Your task to perform on an android device: turn on priority inbox in the gmail app Image 0: 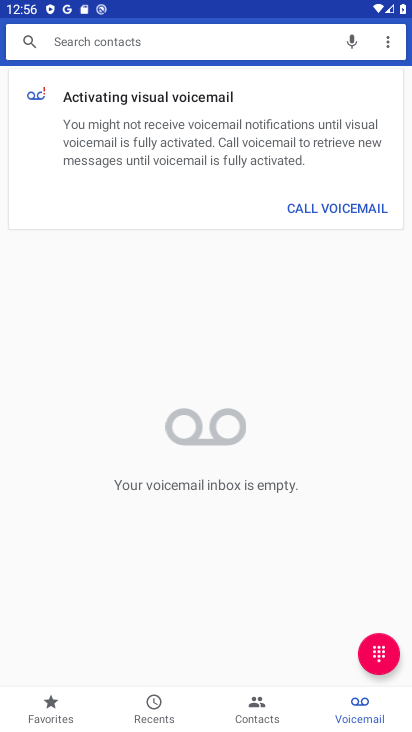
Step 0: press home button
Your task to perform on an android device: turn on priority inbox in the gmail app Image 1: 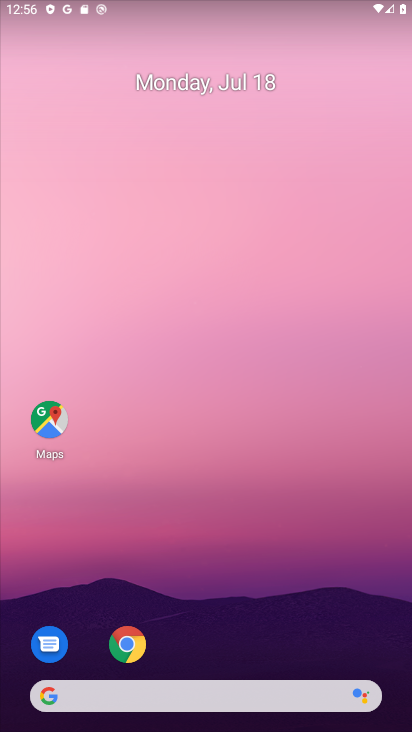
Step 1: drag from (145, 704) to (247, 20)
Your task to perform on an android device: turn on priority inbox in the gmail app Image 2: 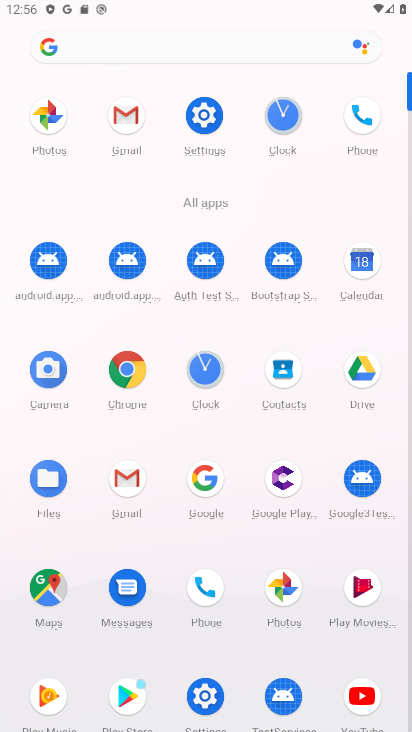
Step 2: click (111, 486)
Your task to perform on an android device: turn on priority inbox in the gmail app Image 3: 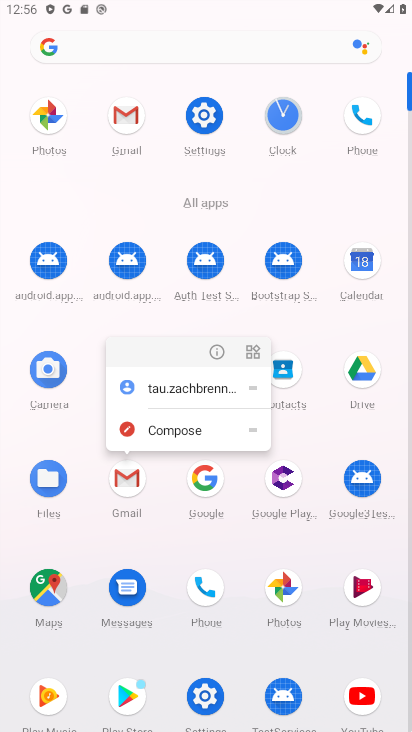
Step 3: click (125, 478)
Your task to perform on an android device: turn on priority inbox in the gmail app Image 4: 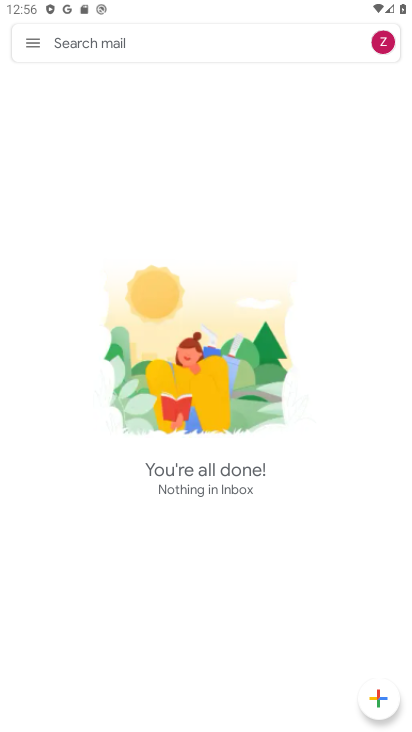
Step 4: click (24, 39)
Your task to perform on an android device: turn on priority inbox in the gmail app Image 5: 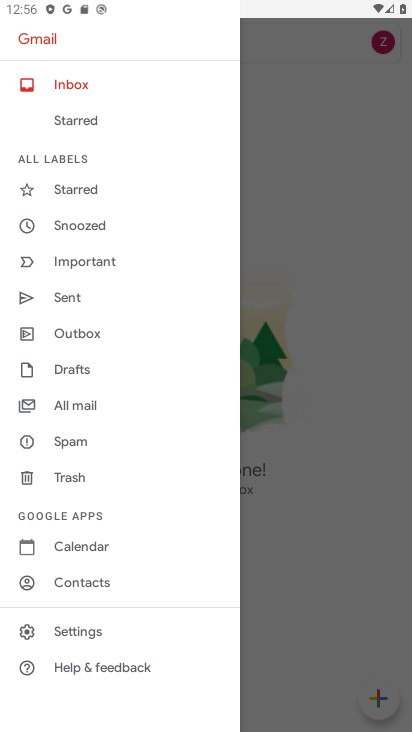
Step 5: drag from (116, 704) to (172, 278)
Your task to perform on an android device: turn on priority inbox in the gmail app Image 6: 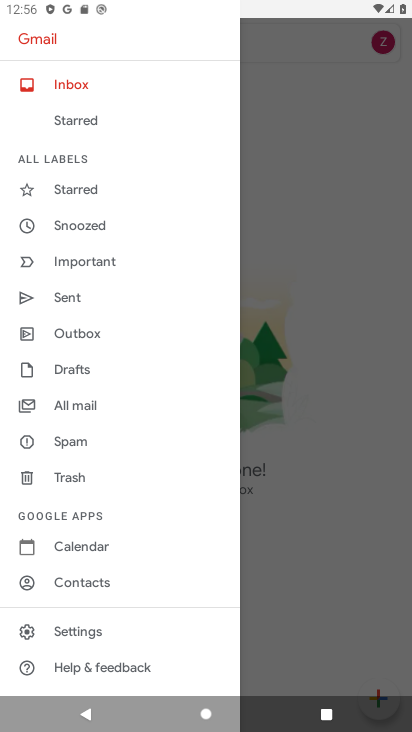
Step 6: drag from (53, 583) to (177, 169)
Your task to perform on an android device: turn on priority inbox in the gmail app Image 7: 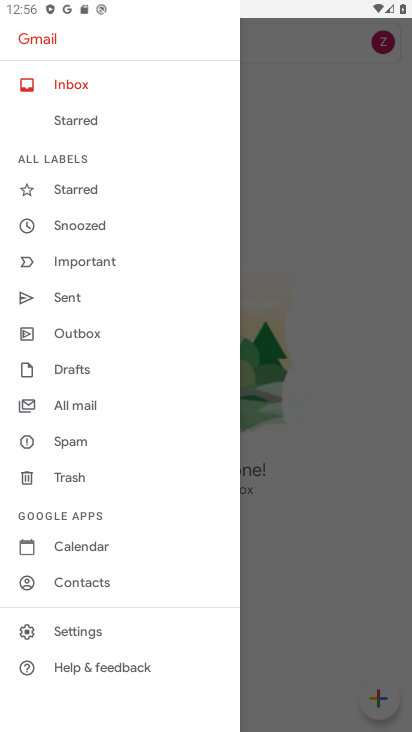
Step 7: click (111, 628)
Your task to perform on an android device: turn on priority inbox in the gmail app Image 8: 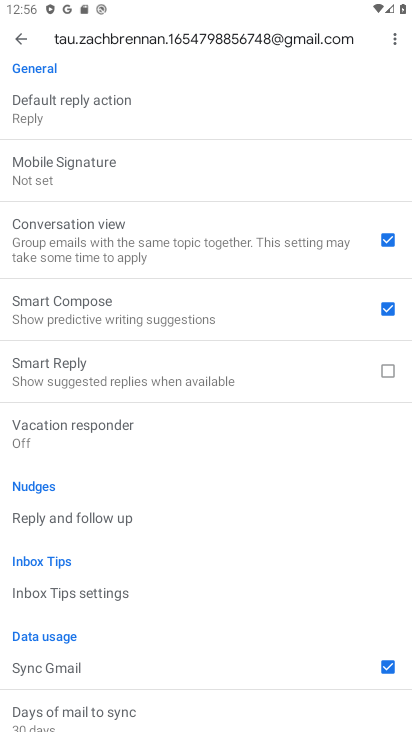
Step 8: drag from (236, 144) to (182, 693)
Your task to perform on an android device: turn on priority inbox in the gmail app Image 9: 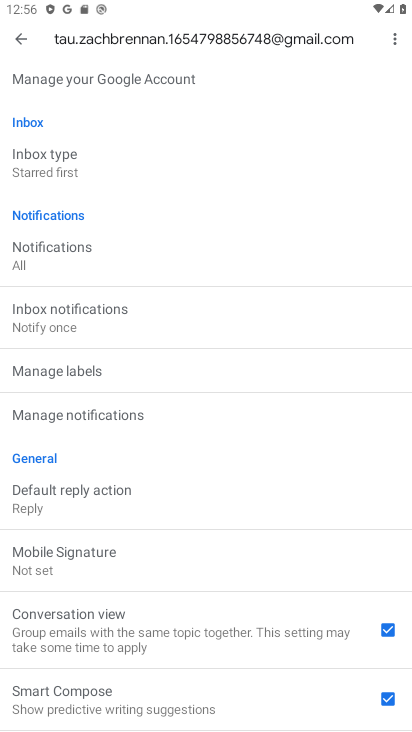
Step 9: click (156, 183)
Your task to perform on an android device: turn on priority inbox in the gmail app Image 10: 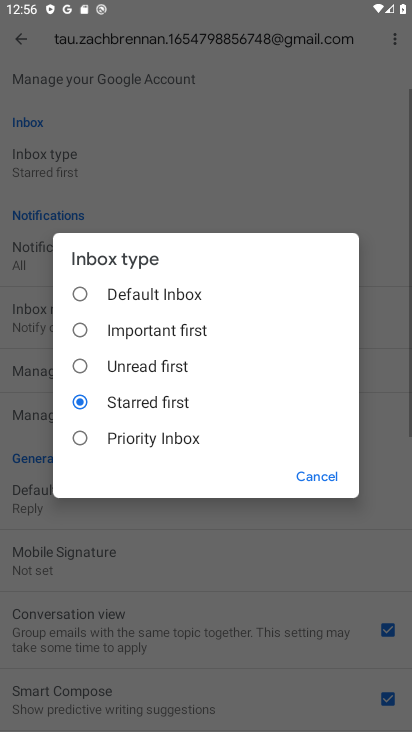
Step 10: click (142, 443)
Your task to perform on an android device: turn on priority inbox in the gmail app Image 11: 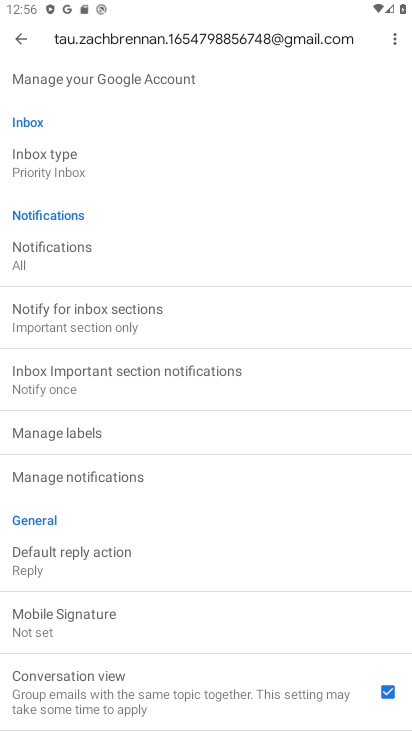
Step 11: task complete